Your task to perform on an android device: Go to wifi settings Image 0: 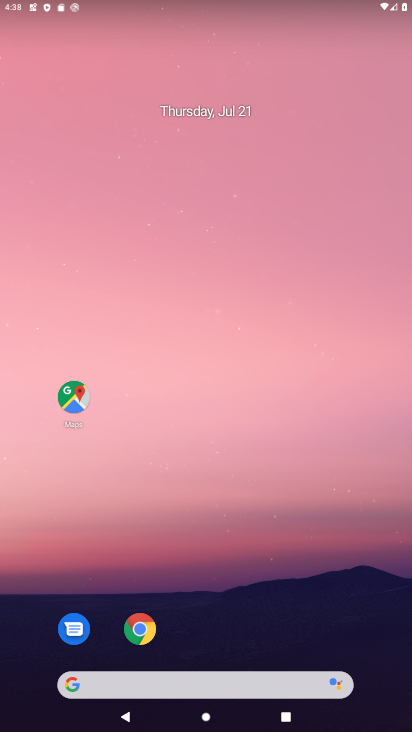
Step 0: drag from (224, 622) to (153, 70)
Your task to perform on an android device: Go to wifi settings Image 1: 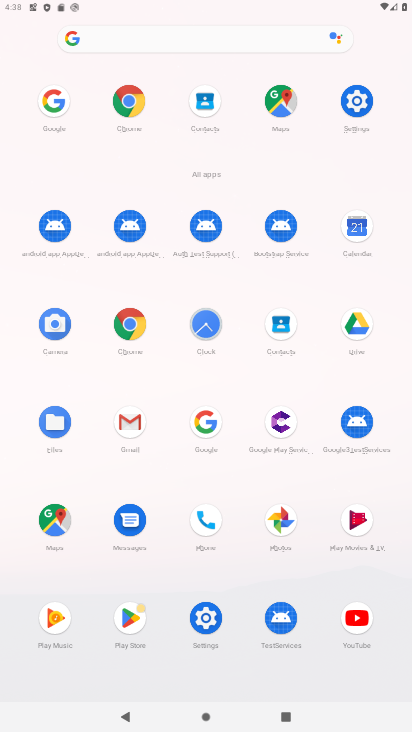
Step 1: drag from (211, 2) to (197, 405)
Your task to perform on an android device: Go to wifi settings Image 2: 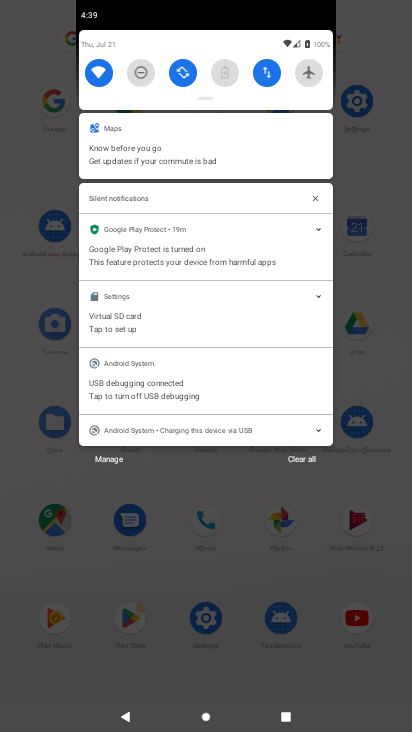
Step 2: click (95, 77)
Your task to perform on an android device: Go to wifi settings Image 3: 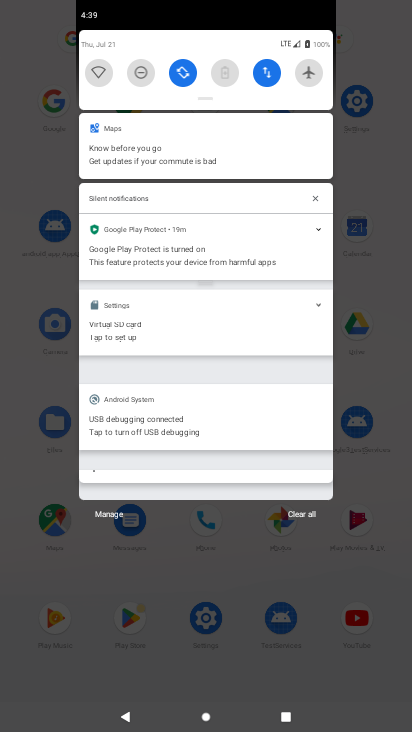
Step 3: task complete